Your task to perform on an android device: Search for vegetarian restaurants on Maps Image 0: 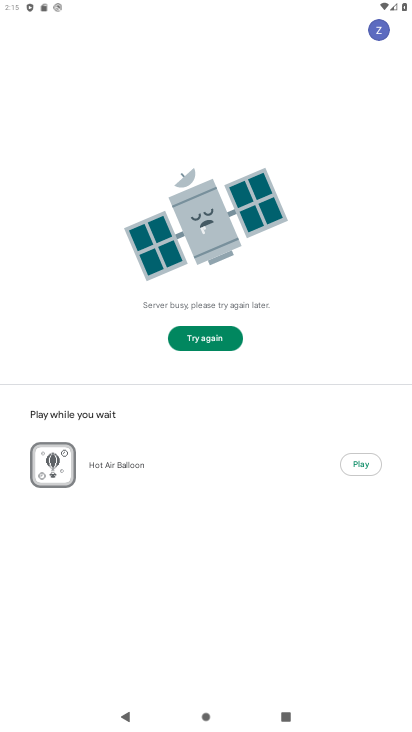
Step 0: press home button
Your task to perform on an android device: Search for vegetarian restaurants on Maps Image 1: 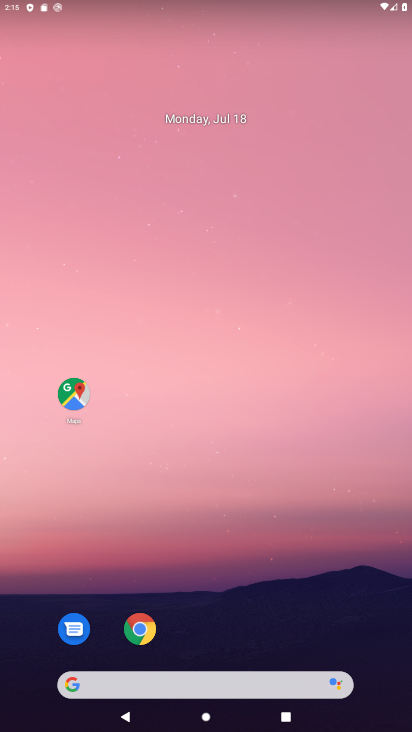
Step 1: click (87, 385)
Your task to perform on an android device: Search for vegetarian restaurants on Maps Image 2: 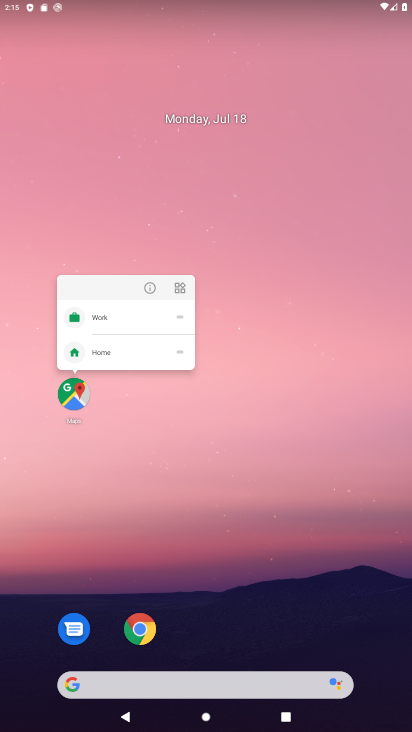
Step 2: click (78, 402)
Your task to perform on an android device: Search for vegetarian restaurants on Maps Image 3: 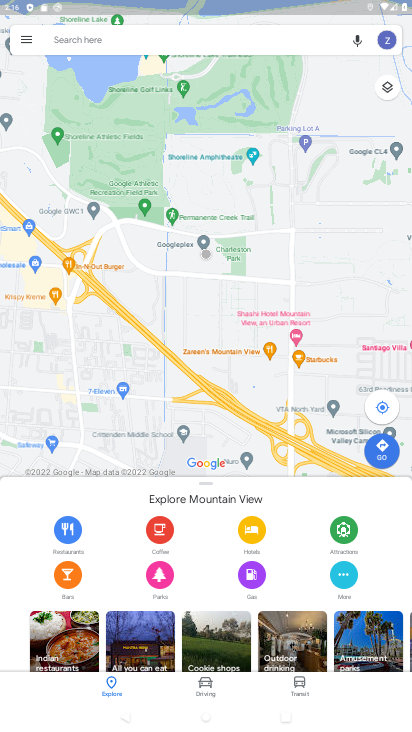
Step 3: click (137, 29)
Your task to perform on an android device: Search for vegetarian restaurants on Maps Image 4: 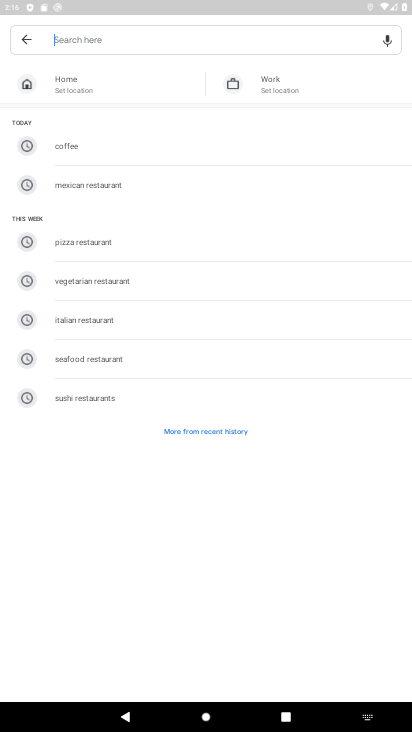
Step 4: type "vegetarian restaurants"
Your task to perform on an android device: Search for vegetarian restaurants on Maps Image 5: 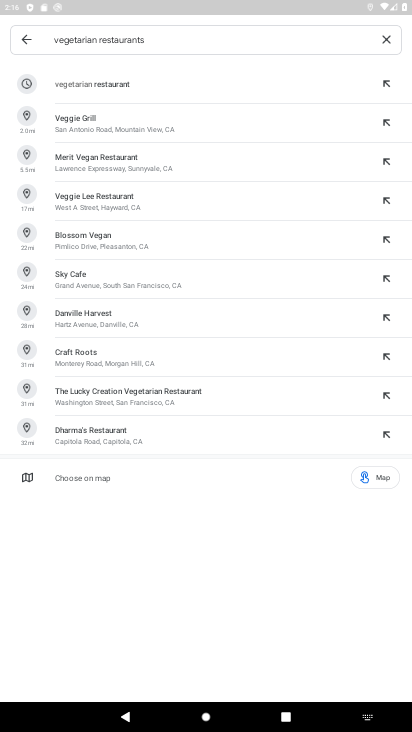
Step 5: click (163, 86)
Your task to perform on an android device: Search for vegetarian restaurants on Maps Image 6: 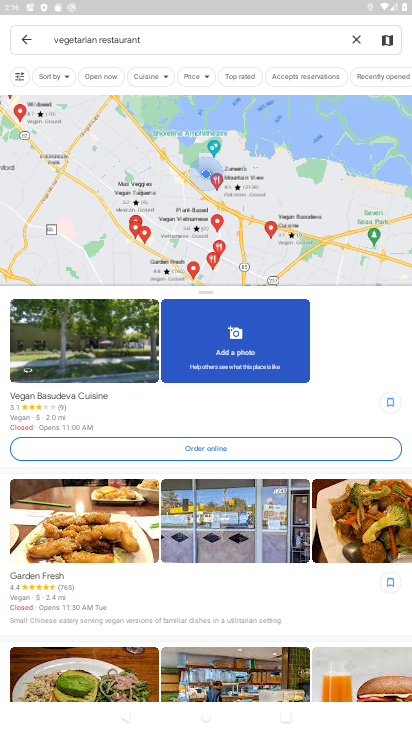
Step 6: task complete